Your task to perform on an android device: Open Yahoo.com Image 0: 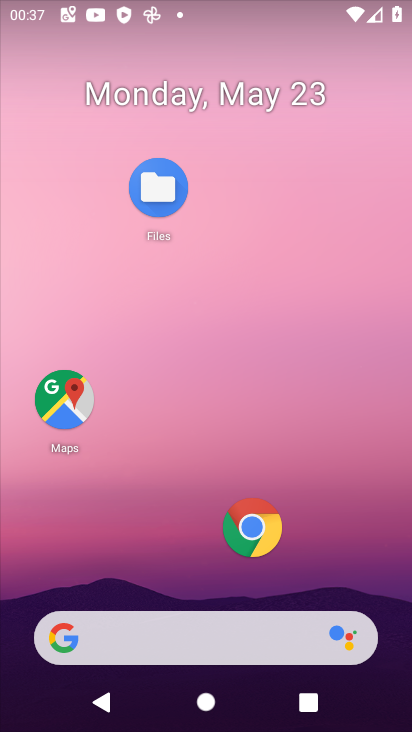
Step 0: click (252, 527)
Your task to perform on an android device: Open Yahoo.com Image 1: 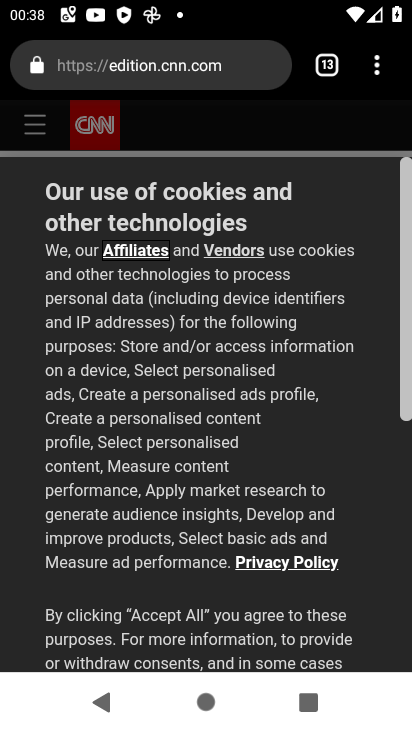
Step 1: click (373, 74)
Your task to perform on an android device: Open Yahoo.com Image 2: 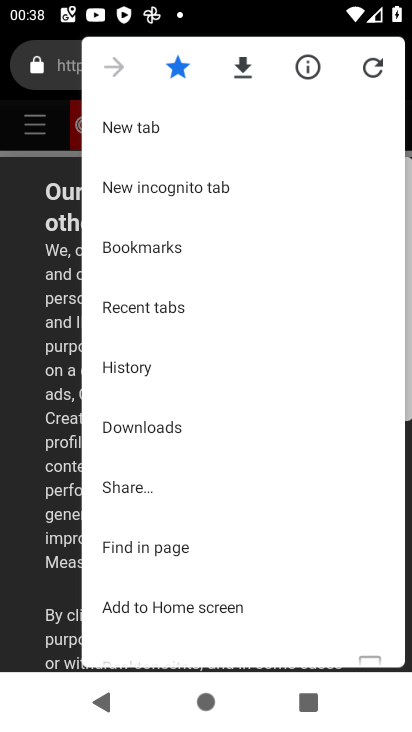
Step 2: click (156, 125)
Your task to perform on an android device: Open Yahoo.com Image 3: 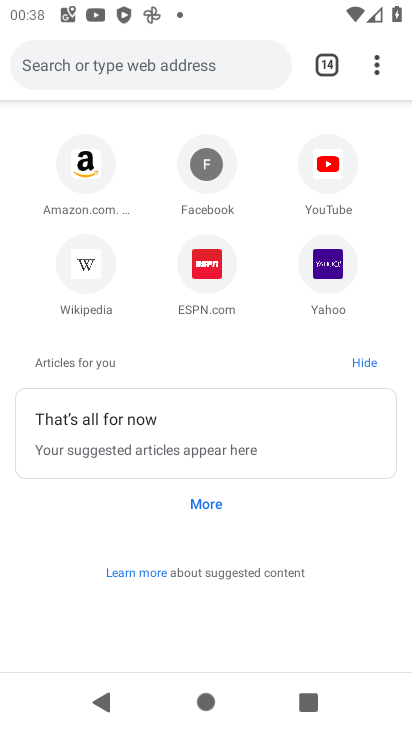
Step 3: click (322, 259)
Your task to perform on an android device: Open Yahoo.com Image 4: 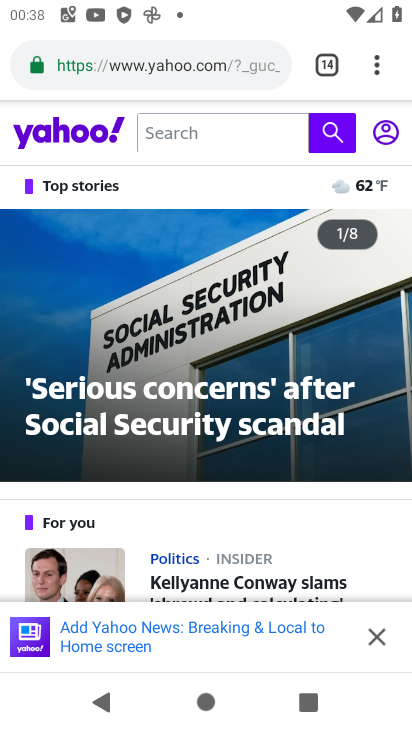
Step 4: task complete